Your task to perform on an android device: make emails show in primary in the gmail app Image 0: 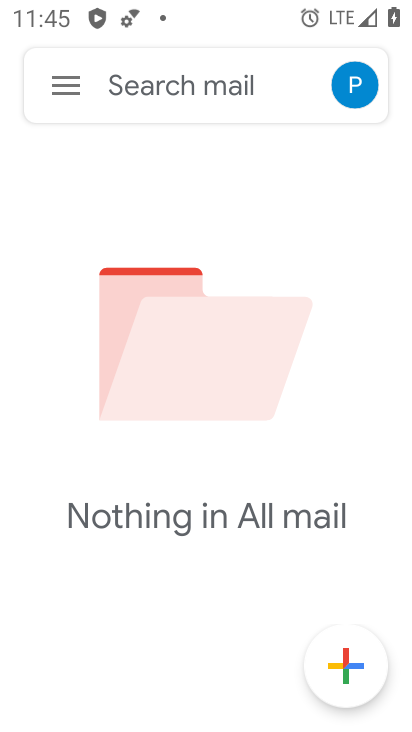
Step 0: press back button
Your task to perform on an android device: make emails show in primary in the gmail app Image 1: 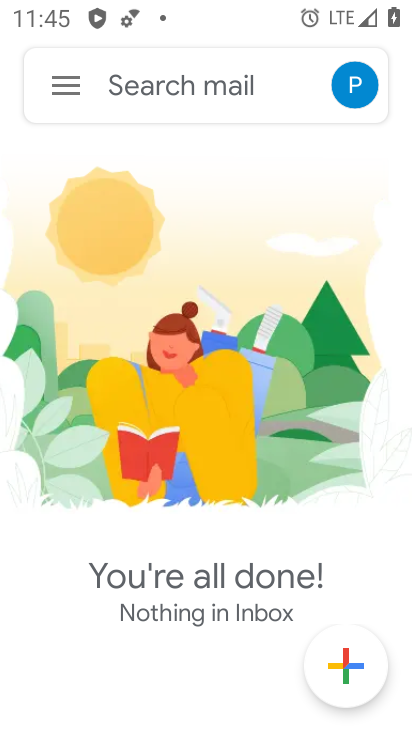
Step 1: press back button
Your task to perform on an android device: make emails show in primary in the gmail app Image 2: 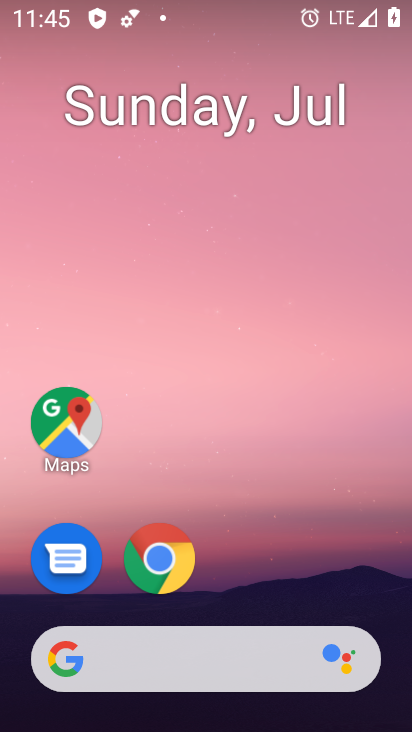
Step 2: click (284, 6)
Your task to perform on an android device: make emails show in primary in the gmail app Image 3: 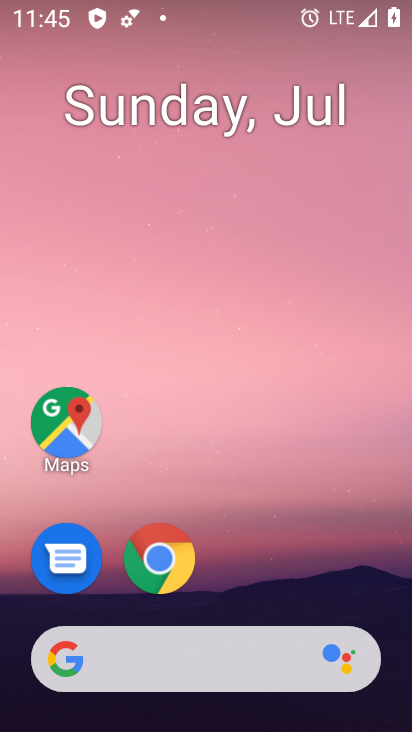
Step 3: drag from (244, 506) to (282, 72)
Your task to perform on an android device: make emails show in primary in the gmail app Image 4: 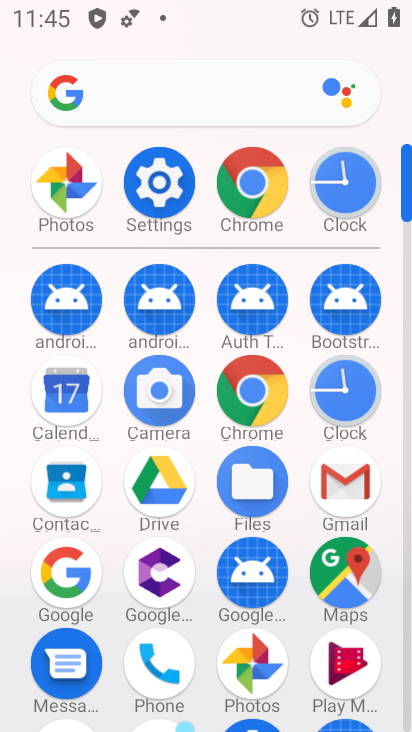
Step 4: click (344, 479)
Your task to perform on an android device: make emails show in primary in the gmail app Image 5: 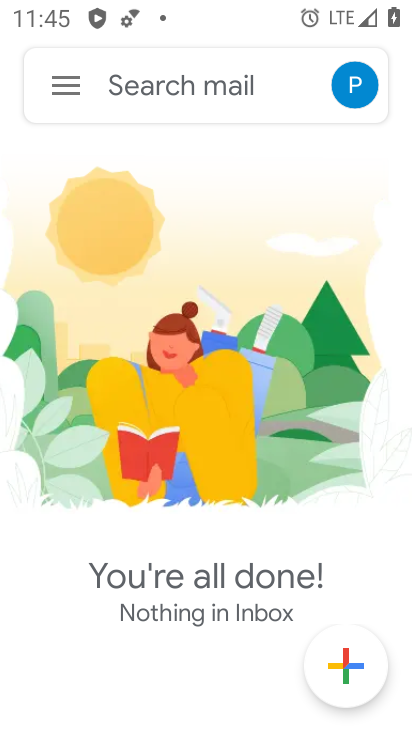
Step 5: click (58, 89)
Your task to perform on an android device: make emails show in primary in the gmail app Image 6: 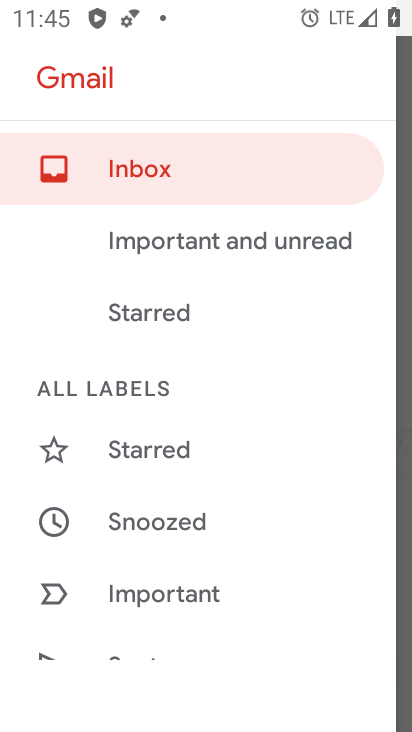
Step 6: drag from (184, 586) to (235, 74)
Your task to perform on an android device: make emails show in primary in the gmail app Image 7: 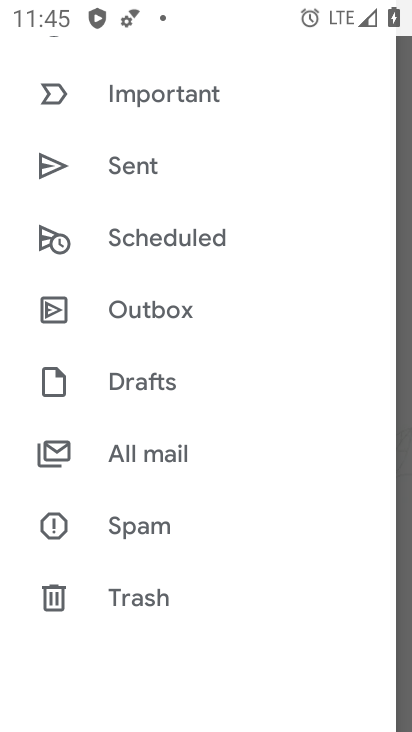
Step 7: drag from (187, 537) to (221, 24)
Your task to perform on an android device: make emails show in primary in the gmail app Image 8: 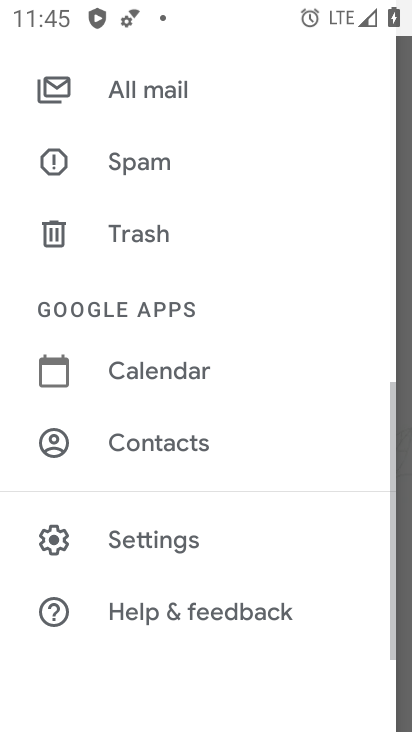
Step 8: click (163, 525)
Your task to perform on an android device: make emails show in primary in the gmail app Image 9: 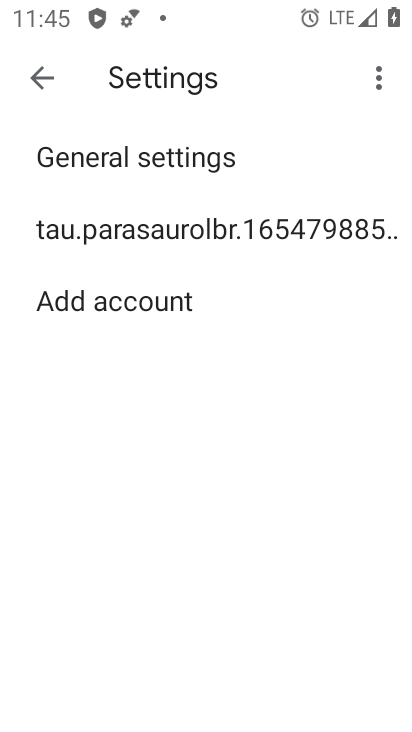
Step 9: click (170, 231)
Your task to perform on an android device: make emails show in primary in the gmail app Image 10: 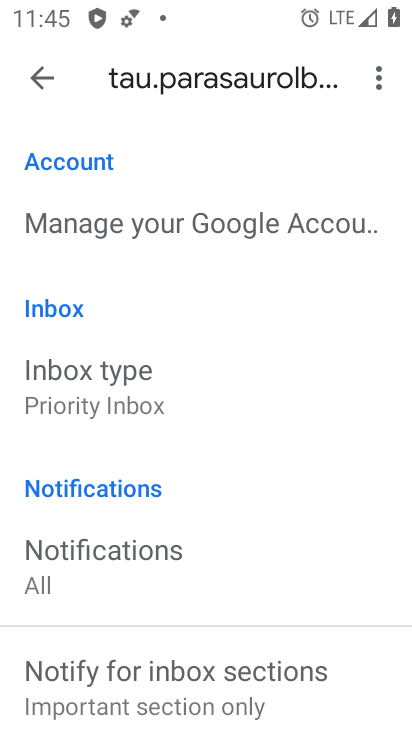
Step 10: task complete